Your task to perform on an android device: toggle show notifications on the lock screen Image 0: 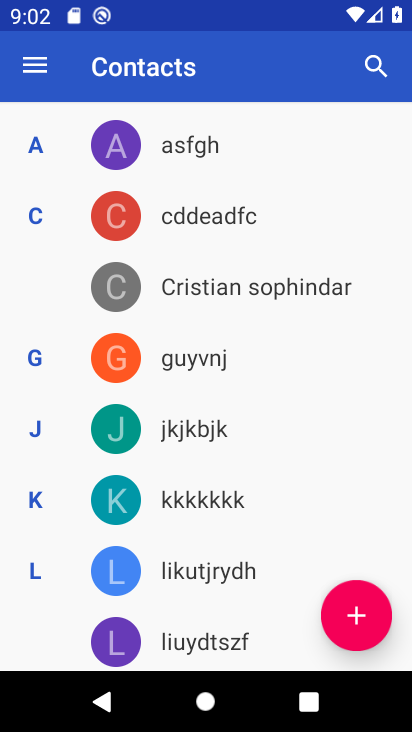
Step 0: press home button
Your task to perform on an android device: toggle show notifications on the lock screen Image 1: 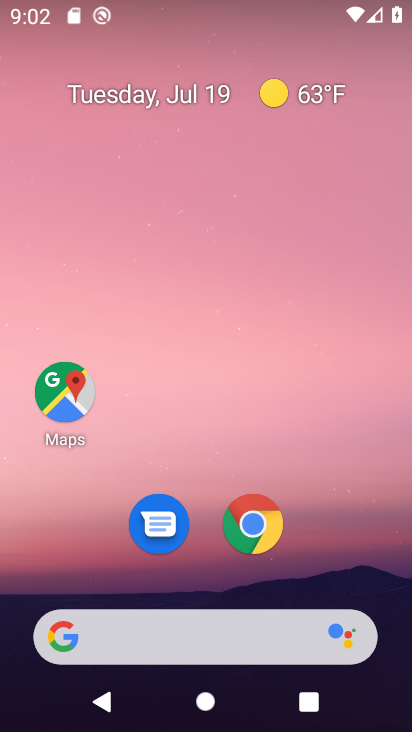
Step 1: drag from (200, 648) to (300, 106)
Your task to perform on an android device: toggle show notifications on the lock screen Image 2: 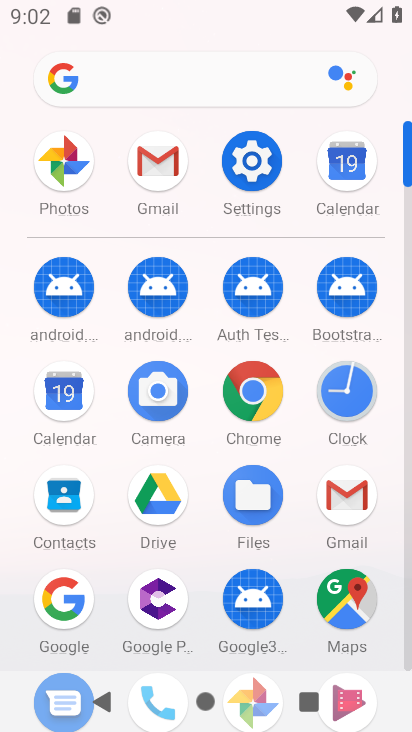
Step 2: click (251, 158)
Your task to perform on an android device: toggle show notifications on the lock screen Image 3: 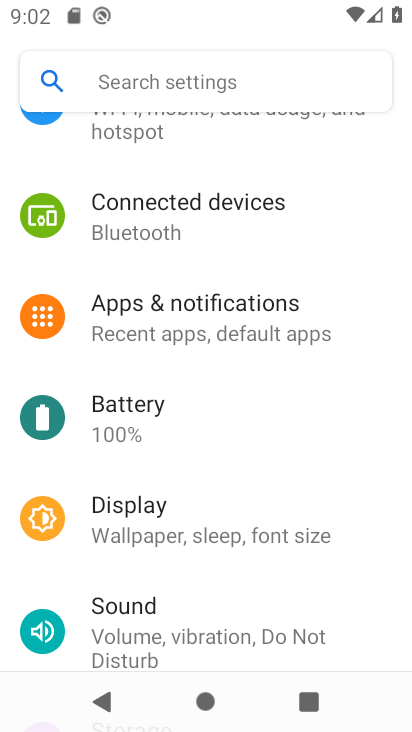
Step 3: click (215, 319)
Your task to perform on an android device: toggle show notifications on the lock screen Image 4: 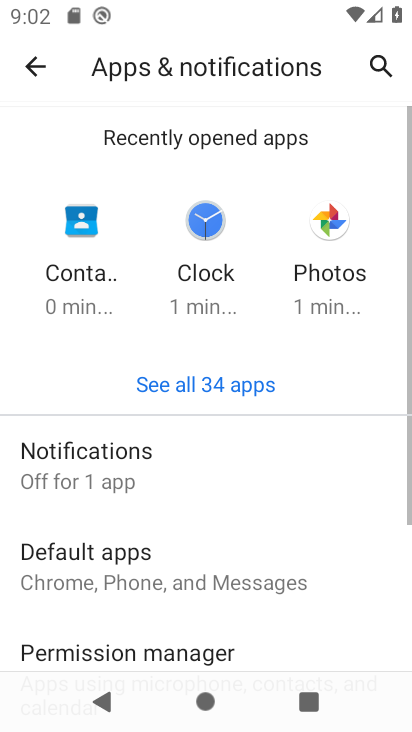
Step 4: click (100, 464)
Your task to perform on an android device: toggle show notifications on the lock screen Image 5: 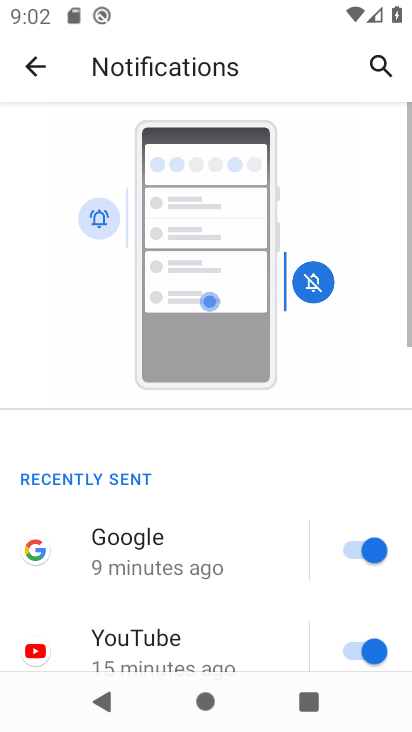
Step 5: drag from (186, 596) to (323, 130)
Your task to perform on an android device: toggle show notifications on the lock screen Image 6: 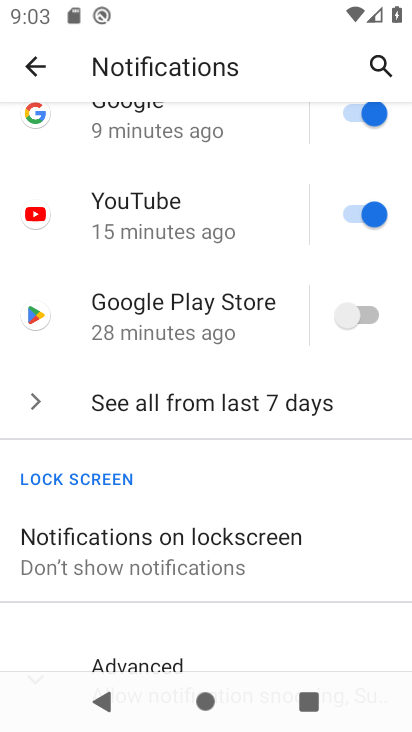
Step 6: click (188, 557)
Your task to perform on an android device: toggle show notifications on the lock screen Image 7: 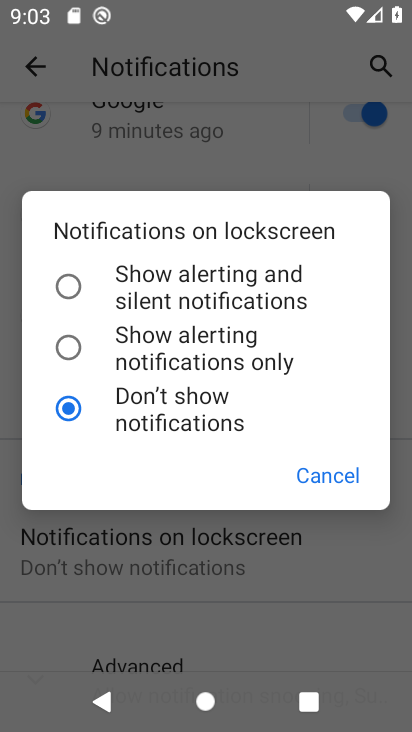
Step 7: click (70, 287)
Your task to perform on an android device: toggle show notifications on the lock screen Image 8: 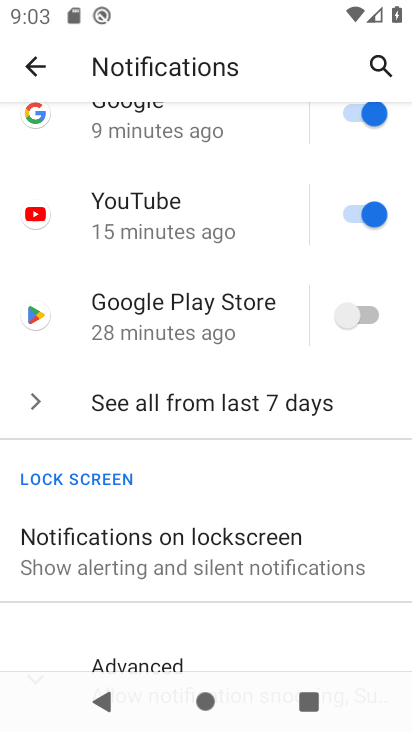
Step 8: task complete